Your task to perform on an android device: set the timer Image 0: 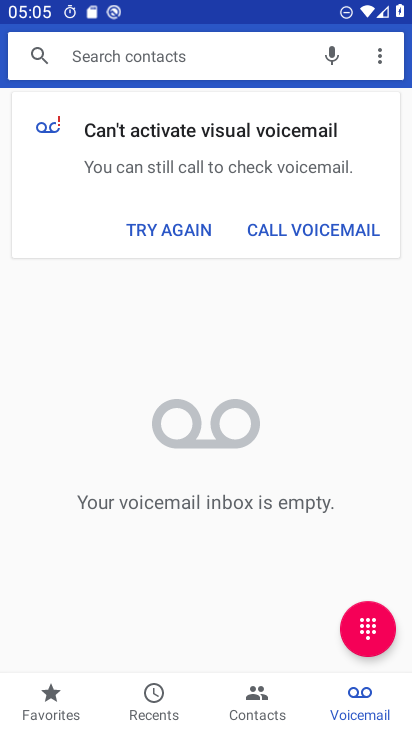
Step 0: press home button
Your task to perform on an android device: set the timer Image 1: 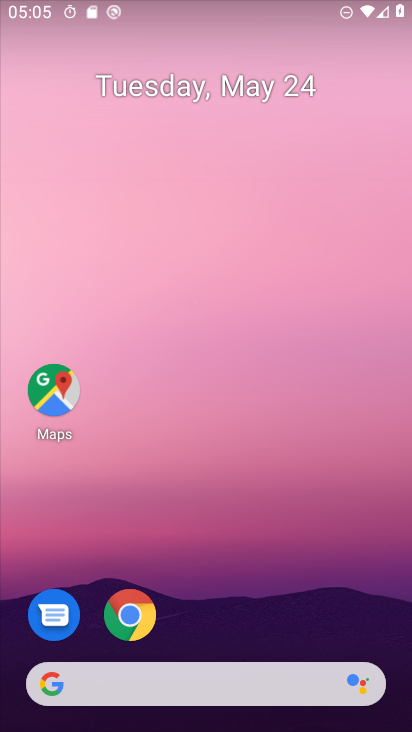
Step 1: drag from (222, 624) to (287, 109)
Your task to perform on an android device: set the timer Image 2: 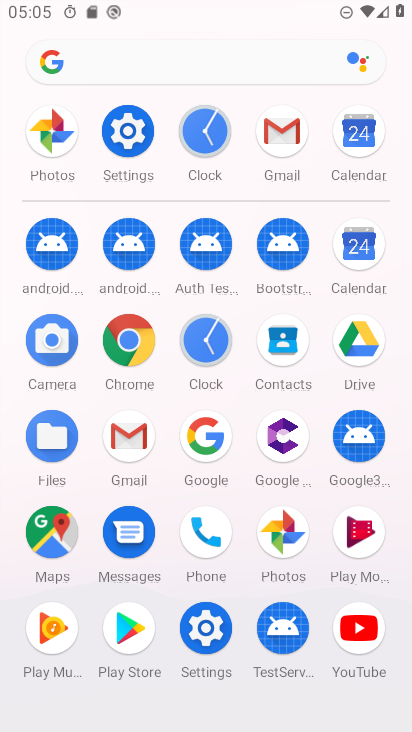
Step 2: click (211, 346)
Your task to perform on an android device: set the timer Image 3: 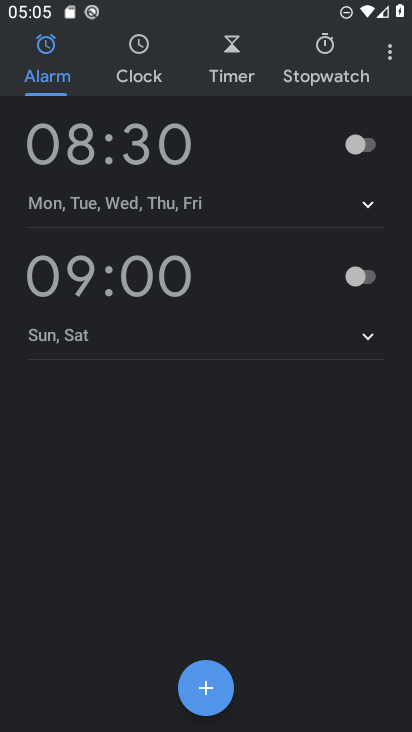
Step 3: click (235, 76)
Your task to perform on an android device: set the timer Image 4: 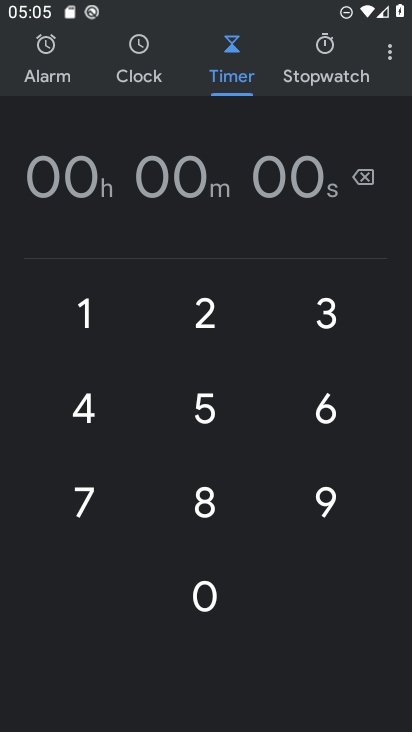
Step 4: click (203, 326)
Your task to perform on an android device: set the timer Image 5: 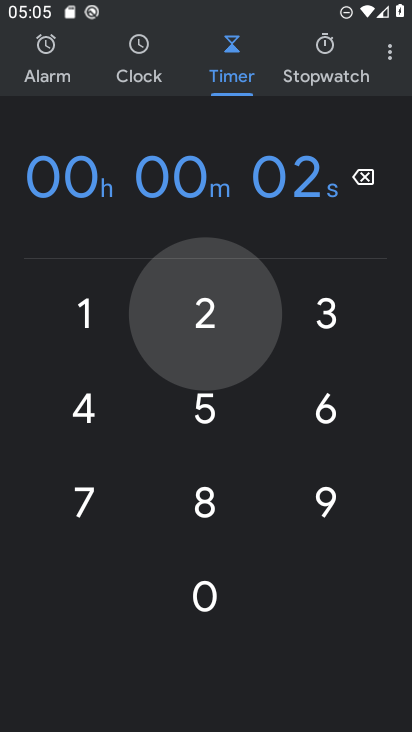
Step 5: click (214, 398)
Your task to perform on an android device: set the timer Image 6: 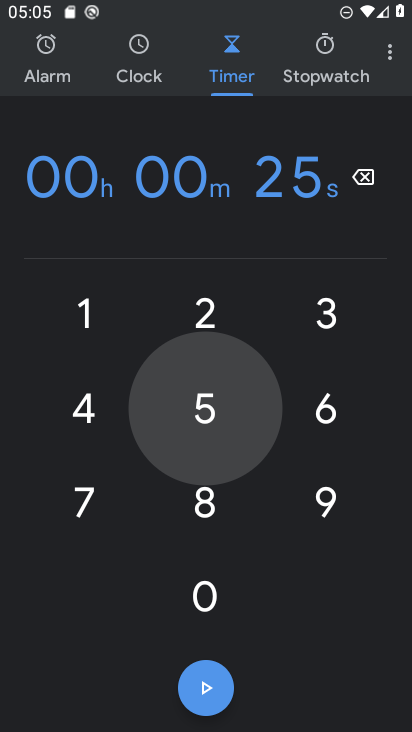
Step 6: click (323, 398)
Your task to perform on an android device: set the timer Image 7: 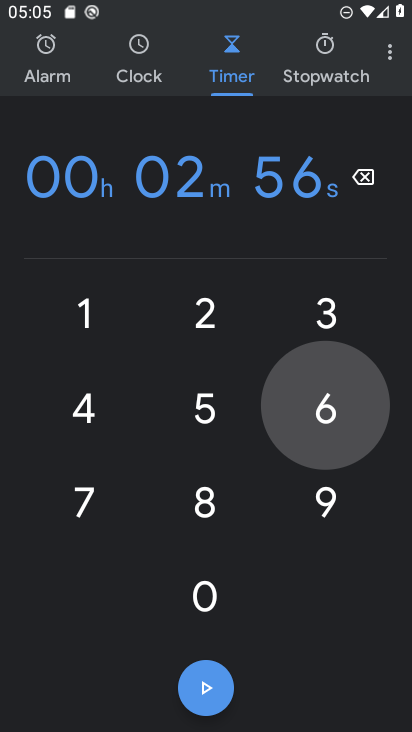
Step 7: click (324, 310)
Your task to perform on an android device: set the timer Image 8: 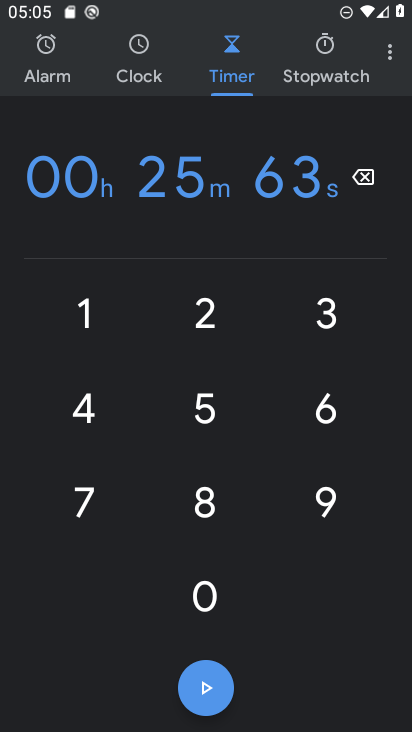
Step 8: click (202, 684)
Your task to perform on an android device: set the timer Image 9: 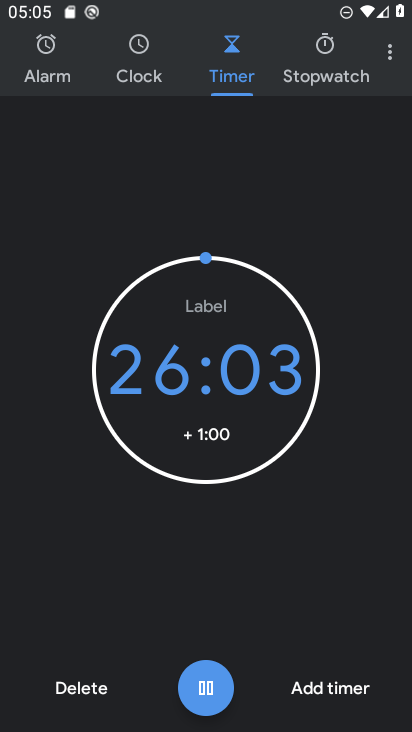
Step 9: task complete